Your task to perform on an android device: check google app version Image 0: 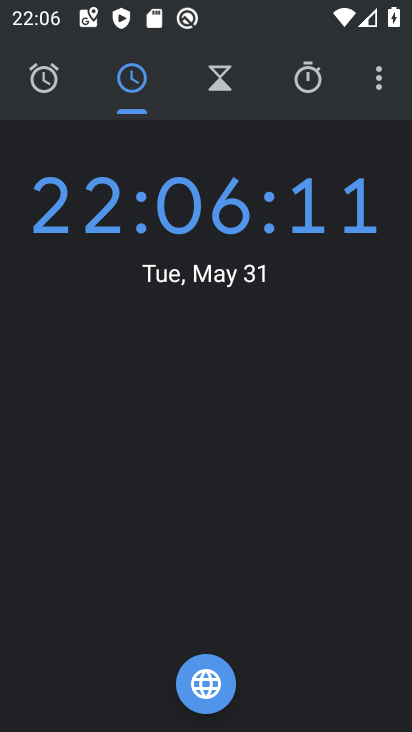
Step 0: press home button
Your task to perform on an android device: check google app version Image 1: 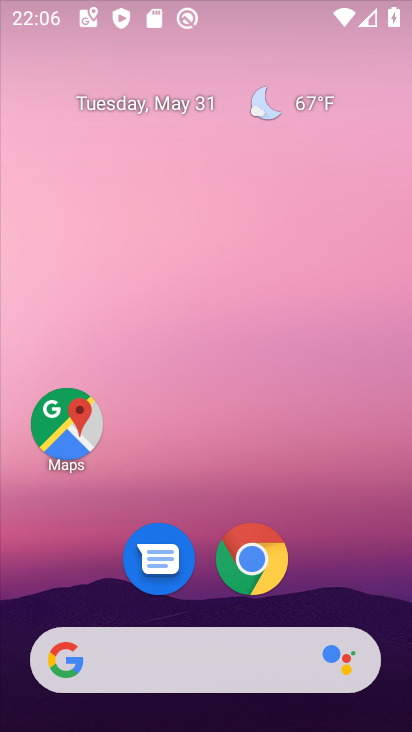
Step 1: drag from (322, 584) to (315, 55)
Your task to perform on an android device: check google app version Image 2: 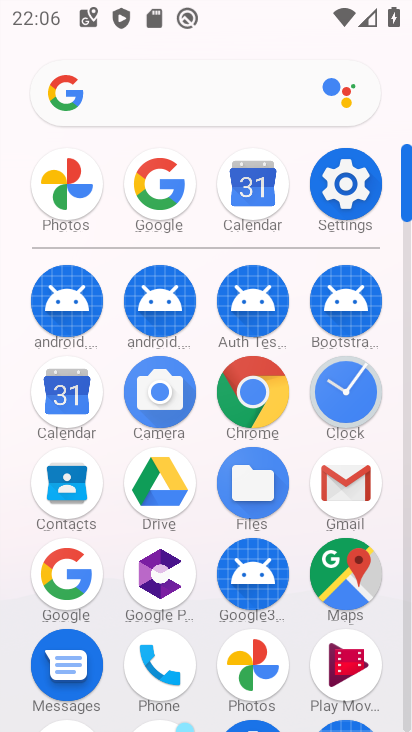
Step 2: click (166, 177)
Your task to perform on an android device: check google app version Image 3: 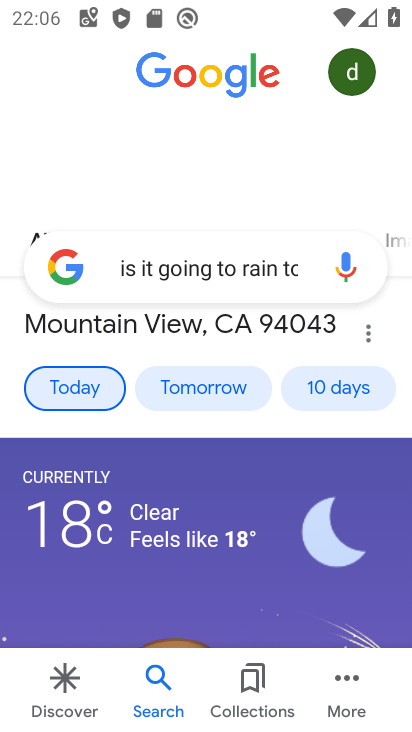
Step 3: click (274, 271)
Your task to perform on an android device: check google app version Image 4: 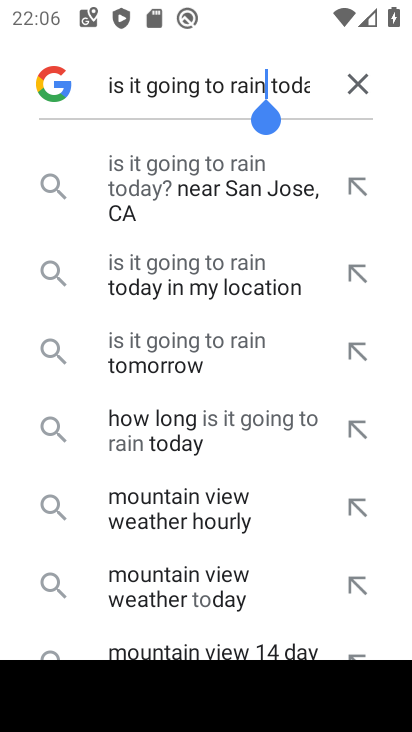
Step 4: click (353, 77)
Your task to perform on an android device: check google app version Image 5: 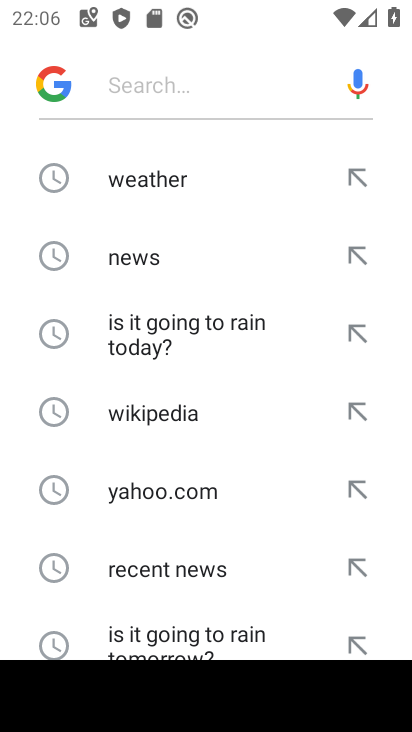
Step 5: press back button
Your task to perform on an android device: check google app version Image 6: 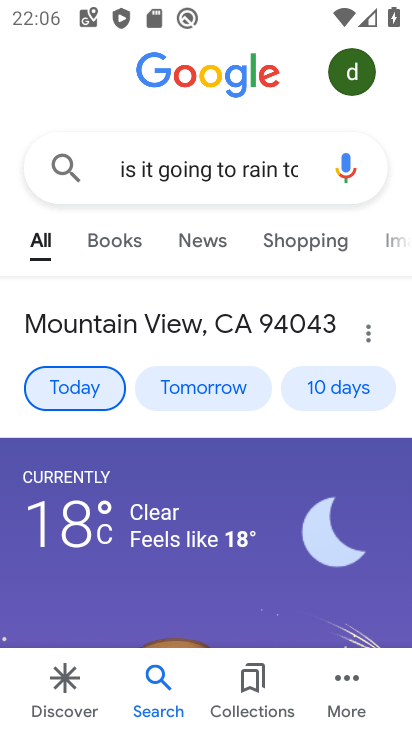
Step 6: click (348, 691)
Your task to perform on an android device: check google app version Image 7: 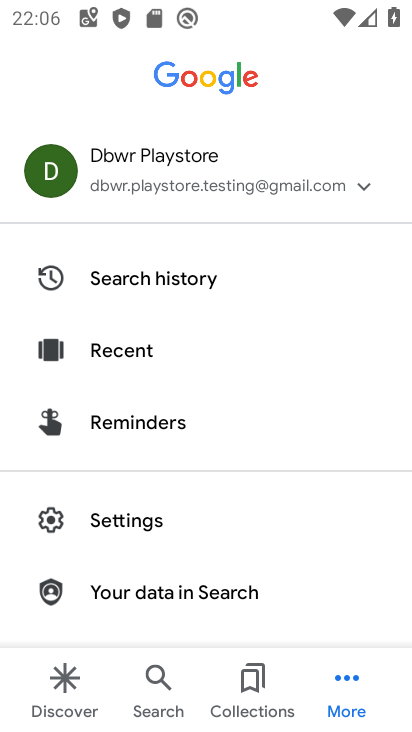
Step 7: drag from (144, 529) to (144, 257)
Your task to perform on an android device: check google app version Image 8: 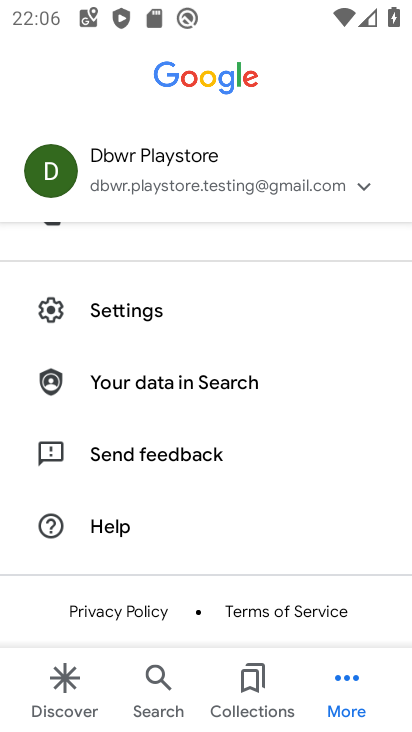
Step 8: click (111, 303)
Your task to perform on an android device: check google app version Image 9: 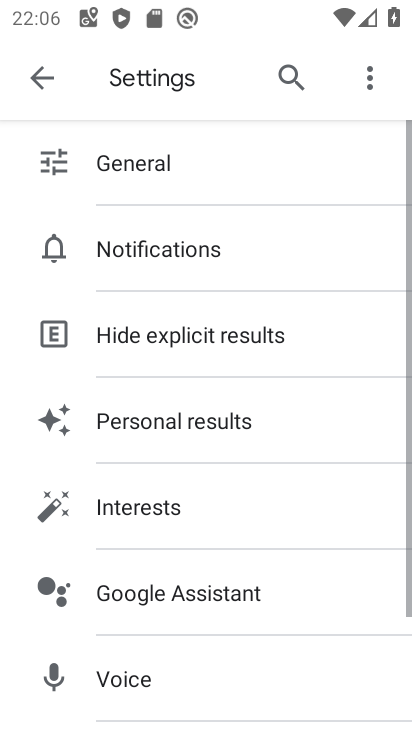
Step 9: drag from (150, 682) to (186, 221)
Your task to perform on an android device: check google app version Image 10: 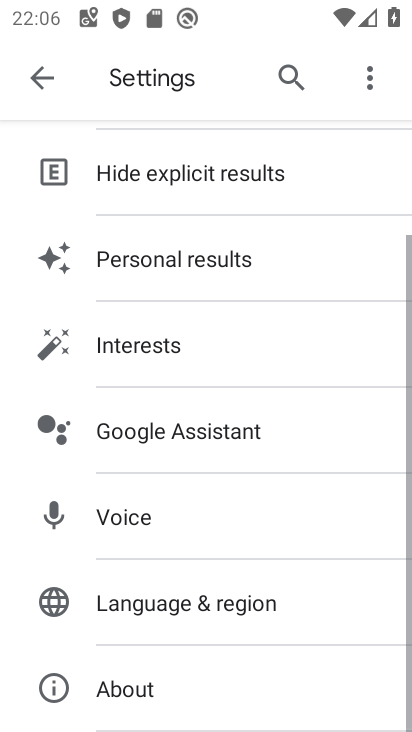
Step 10: click (132, 692)
Your task to perform on an android device: check google app version Image 11: 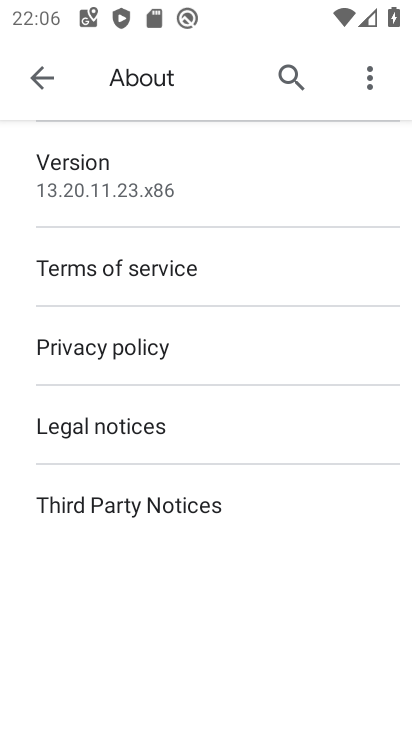
Step 11: task complete